Your task to perform on an android device: toggle javascript in the chrome app Image 0: 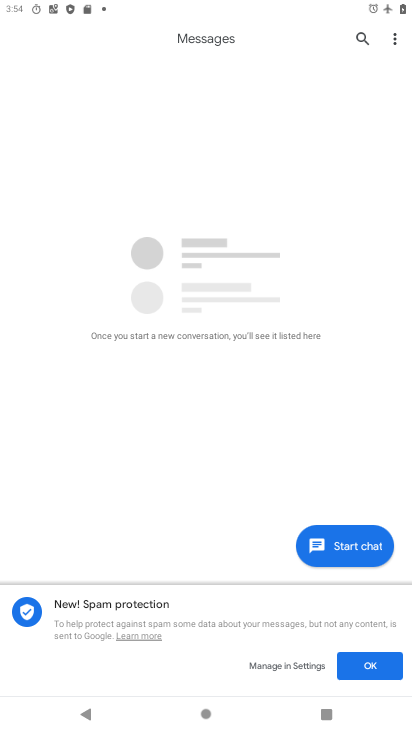
Step 0: press home button
Your task to perform on an android device: toggle javascript in the chrome app Image 1: 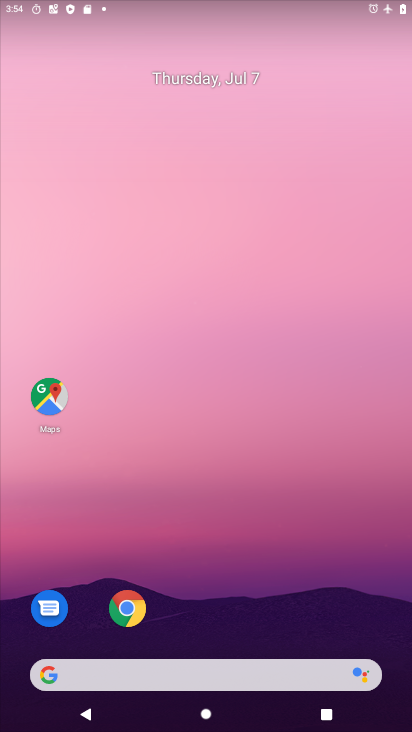
Step 1: drag from (237, 725) to (220, 67)
Your task to perform on an android device: toggle javascript in the chrome app Image 2: 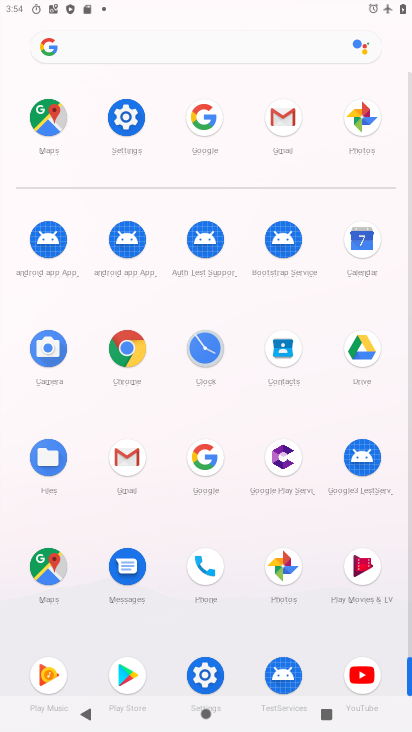
Step 2: click (125, 348)
Your task to perform on an android device: toggle javascript in the chrome app Image 3: 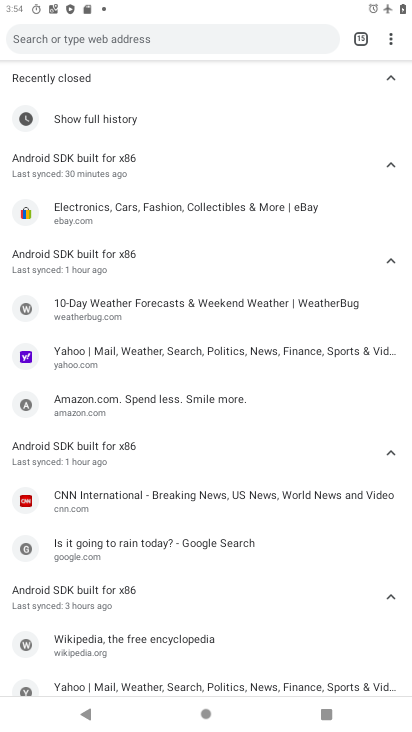
Step 3: click (392, 41)
Your task to perform on an android device: toggle javascript in the chrome app Image 4: 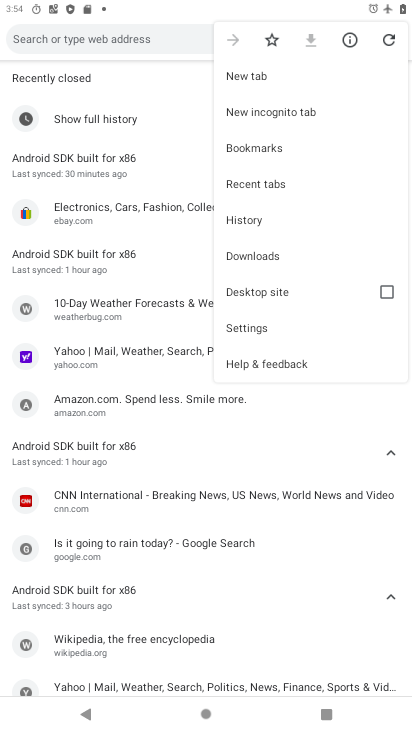
Step 4: click (248, 324)
Your task to perform on an android device: toggle javascript in the chrome app Image 5: 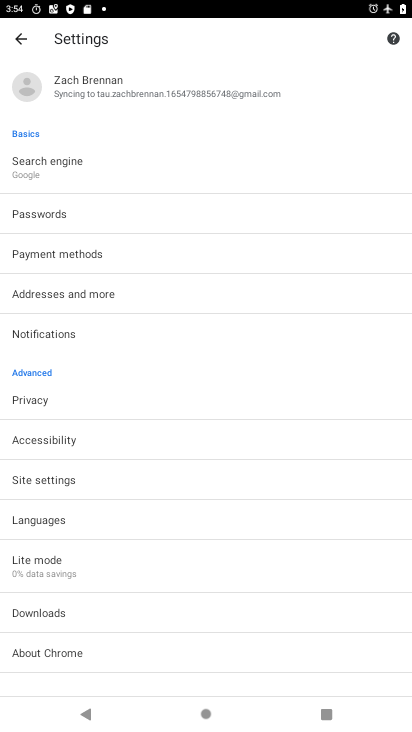
Step 5: click (54, 481)
Your task to perform on an android device: toggle javascript in the chrome app Image 6: 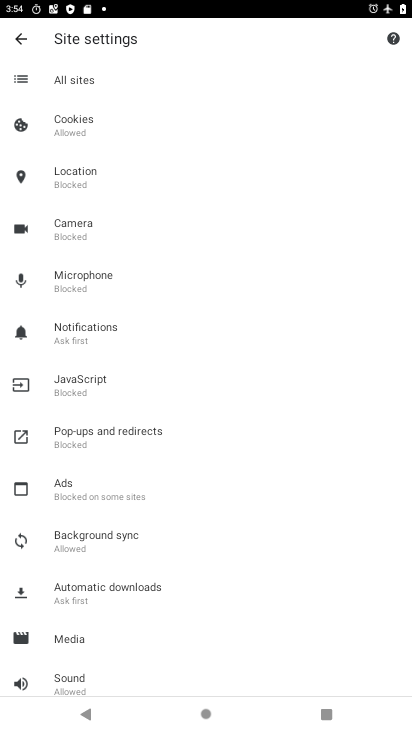
Step 6: click (87, 381)
Your task to perform on an android device: toggle javascript in the chrome app Image 7: 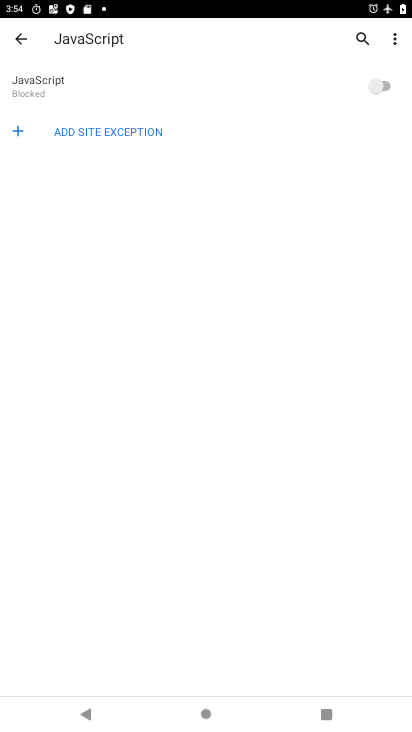
Step 7: click (387, 84)
Your task to perform on an android device: toggle javascript in the chrome app Image 8: 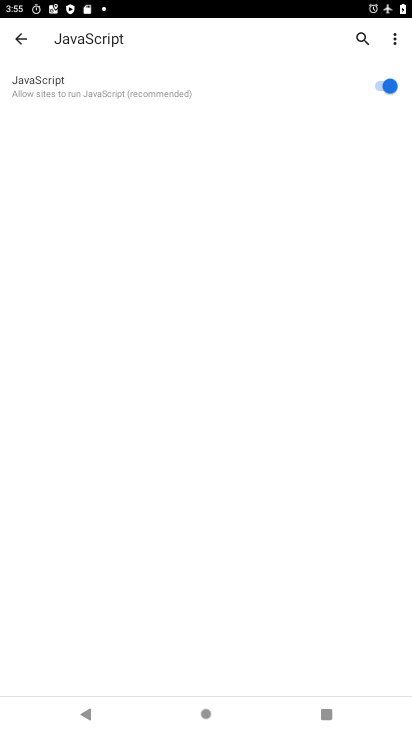
Step 8: task complete